Your task to perform on an android device: What time is it in Berlin? Image 0: 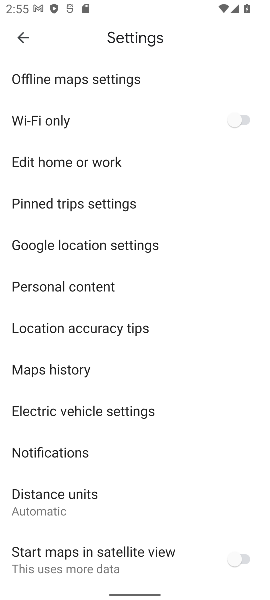
Step 0: press home button
Your task to perform on an android device: What time is it in Berlin? Image 1: 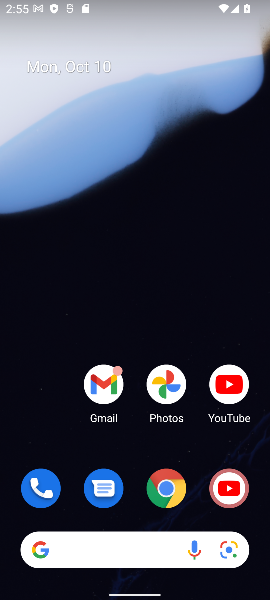
Step 1: click (133, 542)
Your task to perform on an android device: What time is it in Berlin? Image 2: 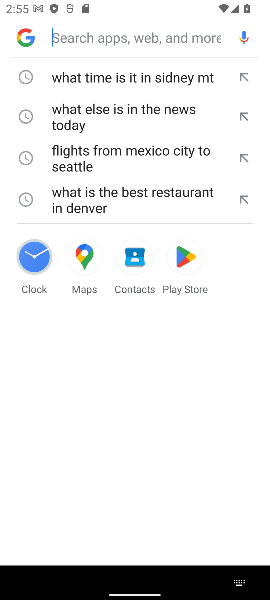
Step 2: click (103, 38)
Your task to perform on an android device: What time is it in Berlin? Image 3: 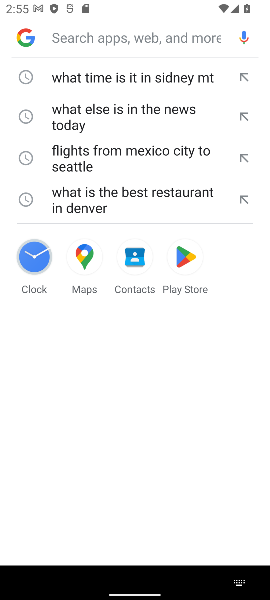
Step 3: type "What time is it in Berlin"
Your task to perform on an android device: What time is it in Berlin? Image 4: 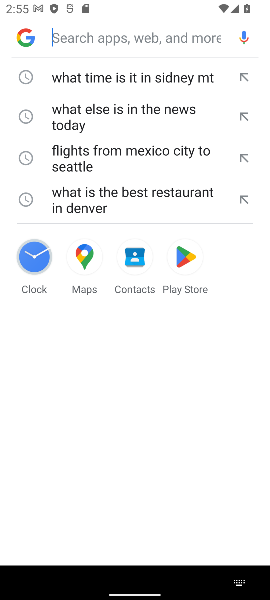
Step 4: click (117, 463)
Your task to perform on an android device: What time is it in Berlin? Image 5: 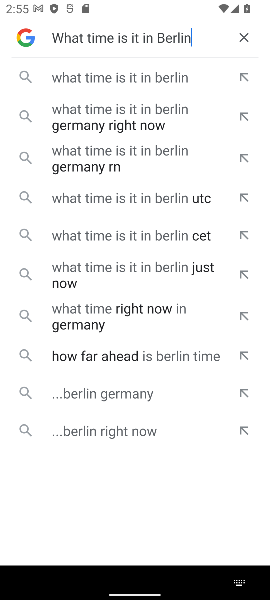
Step 5: click (124, 75)
Your task to perform on an android device: What time is it in Berlin? Image 6: 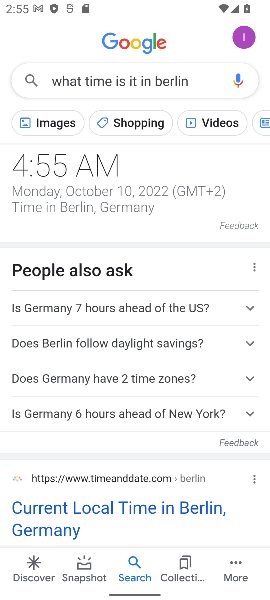
Step 6: task complete